Your task to perform on an android device: What is the recent news? Image 0: 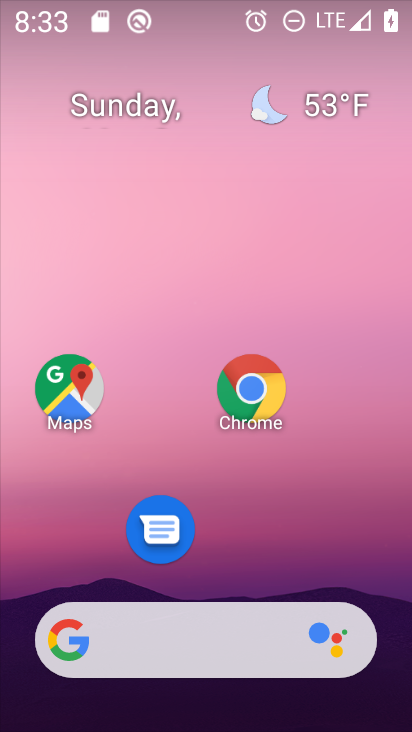
Step 0: click (213, 635)
Your task to perform on an android device: What is the recent news? Image 1: 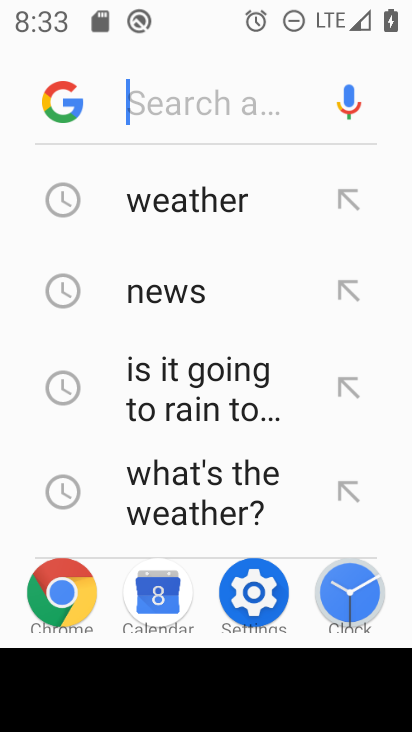
Step 1: type "recent news"
Your task to perform on an android device: What is the recent news? Image 2: 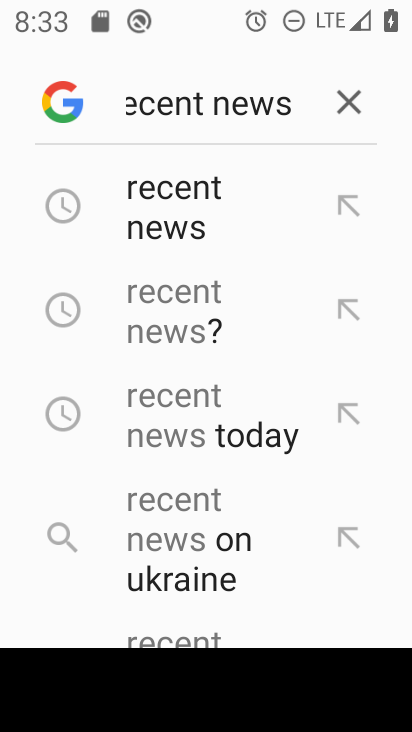
Step 2: click (185, 320)
Your task to perform on an android device: What is the recent news? Image 3: 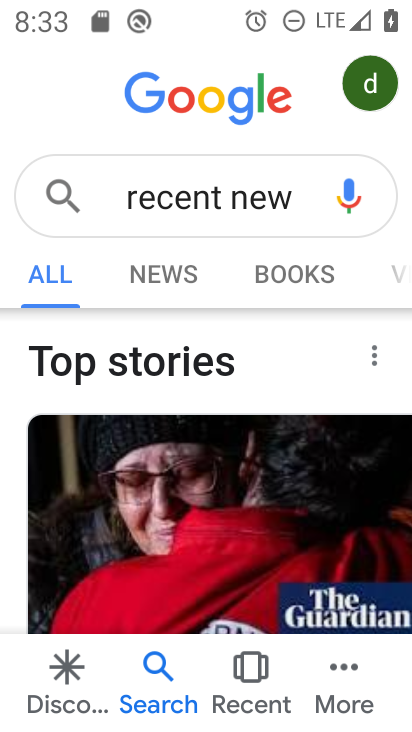
Step 3: task complete